Your task to perform on an android device: check battery use Image 0: 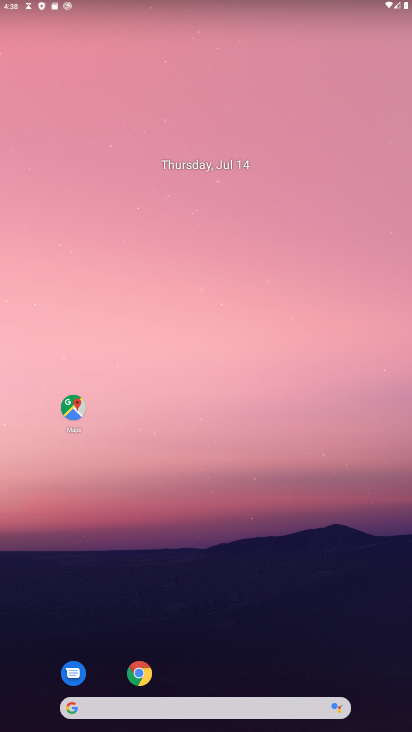
Step 0: click (28, 351)
Your task to perform on an android device: check battery use Image 1: 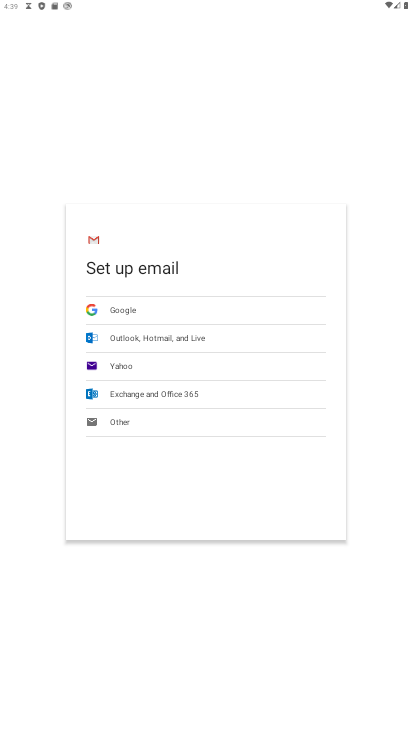
Step 1: press back button
Your task to perform on an android device: check battery use Image 2: 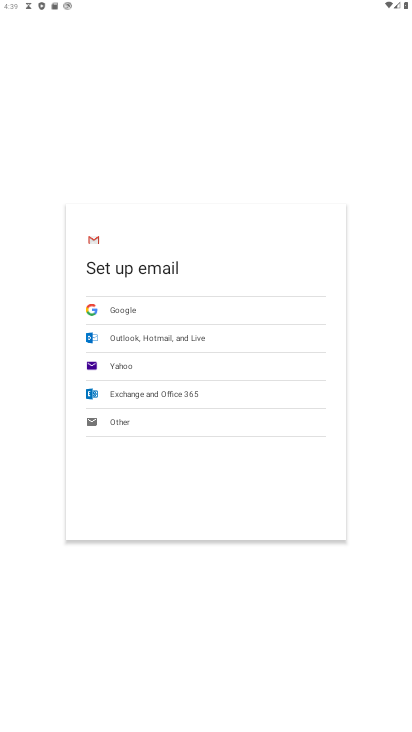
Step 2: press back button
Your task to perform on an android device: check battery use Image 3: 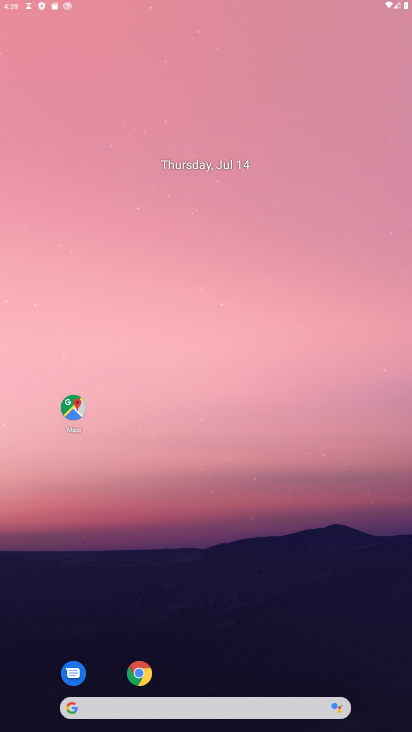
Step 3: press back button
Your task to perform on an android device: check battery use Image 4: 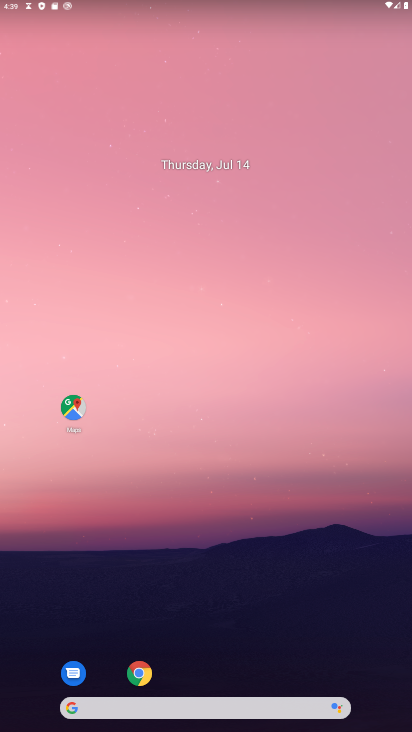
Step 4: drag from (265, 665) to (210, 130)
Your task to perform on an android device: check battery use Image 5: 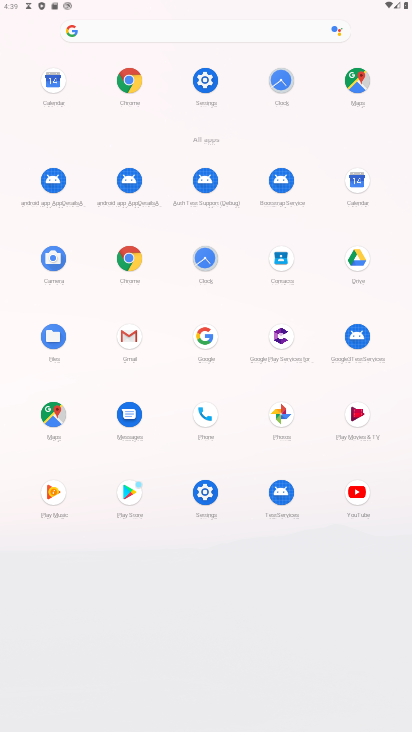
Step 5: click (203, 495)
Your task to perform on an android device: check battery use Image 6: 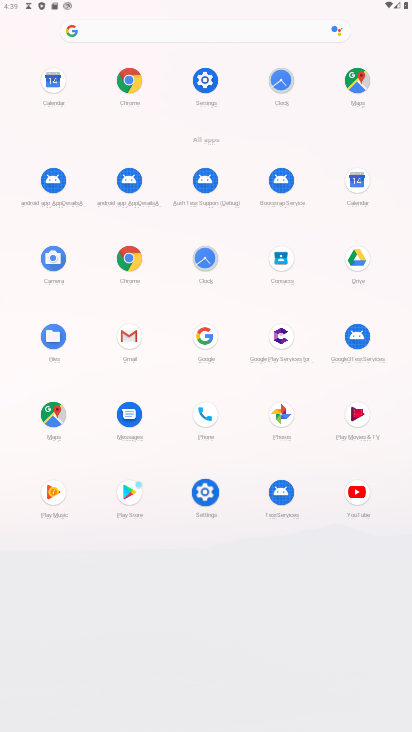
Step 6: click (207, 496)
Your task to perform on an android device: check battery use Image 7: 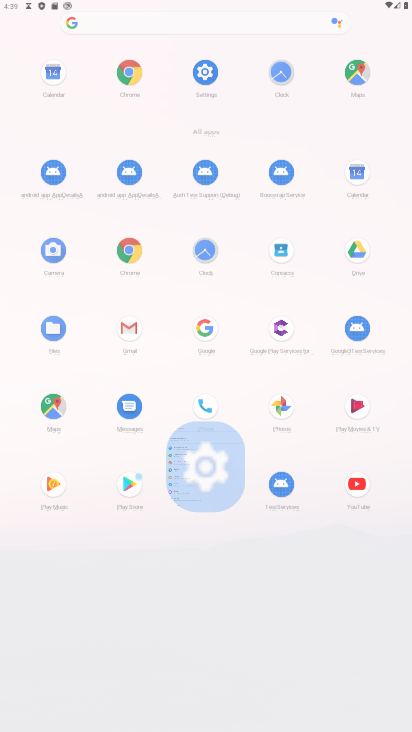
Step 7: click (208, 499)
Your task to perform on an android device: check battery use Image 8: 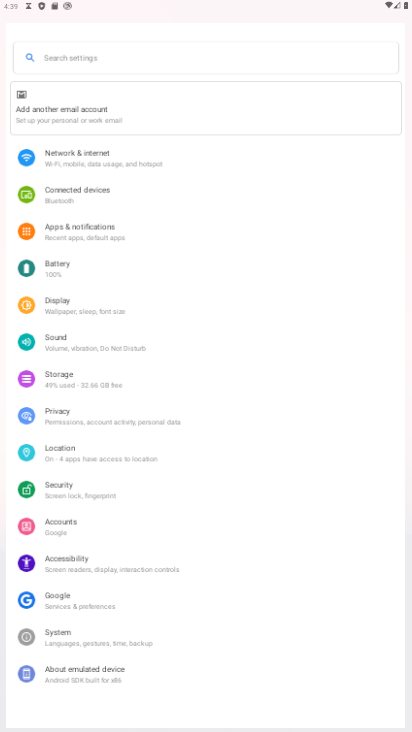
Step 8: click (209, 499)
Your task to perform on an android device: check battery use Image 9: 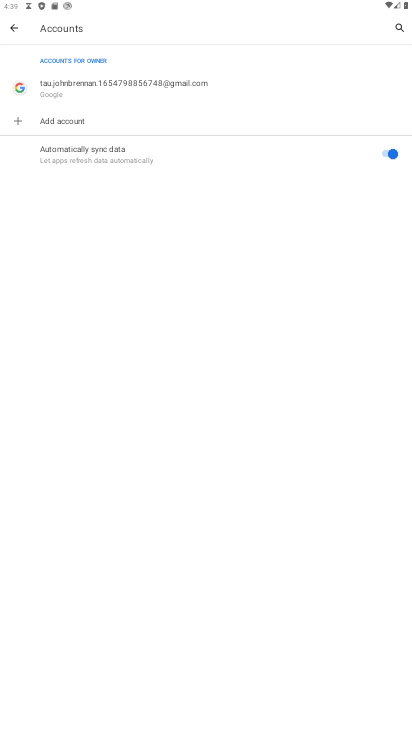
Step 9: click (12, 17)
Your task to perform on an android device: check battery use Image 10: 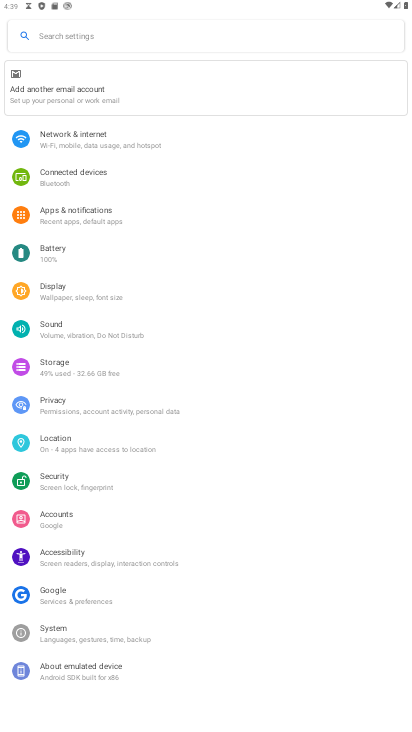
Step 10: click (49, 257)
Your task to perform on an android device: check battery use Image 11: 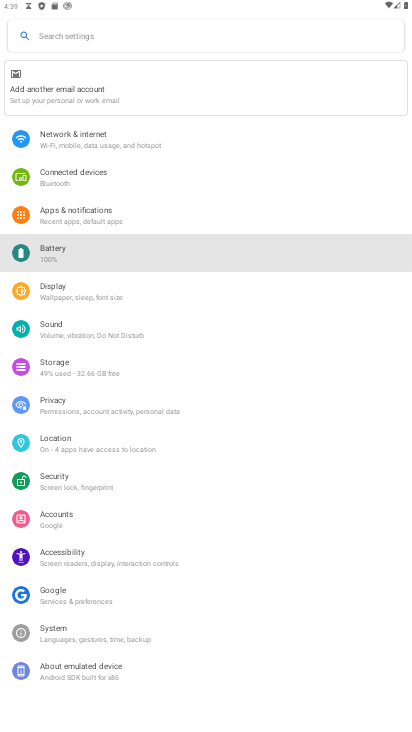
Step 11: click (49, 257)
Your task to perform on an android device: check battery use Image 12: 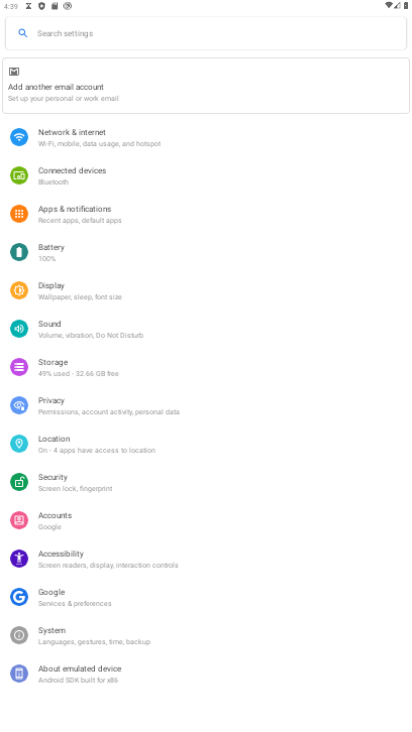
Step 12: click (49, 257)
Your task to perform on an android device: check battery use Image 13: 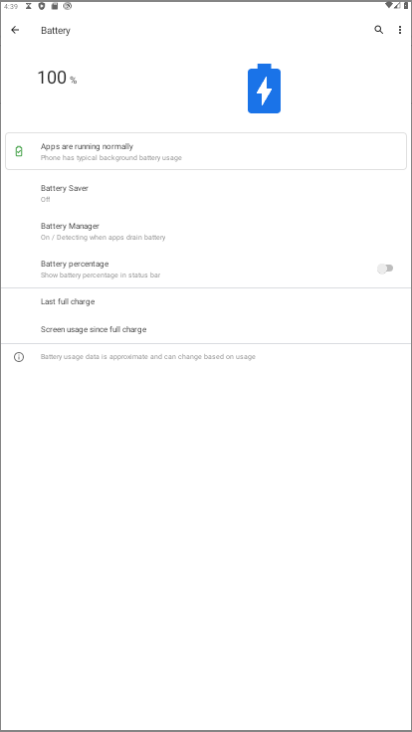
Step 13: click (49, 257)
Your task to perform on an android device: check battery use Image 14: 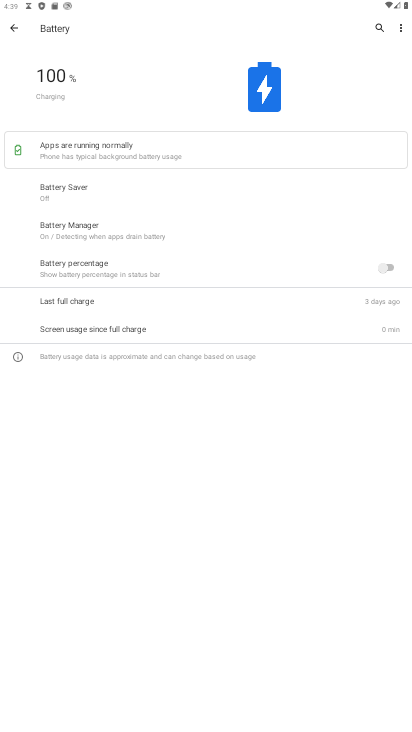
Step 14: task complete